Your task to perform on an android device: toggle translation in the chrome app Image 0: 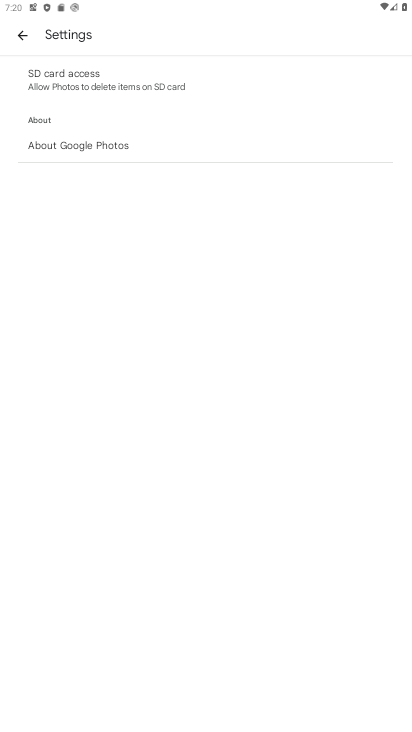
Step 0: press home button
Your task to perform on an android device: toggle translation in the chrome app Image 1: 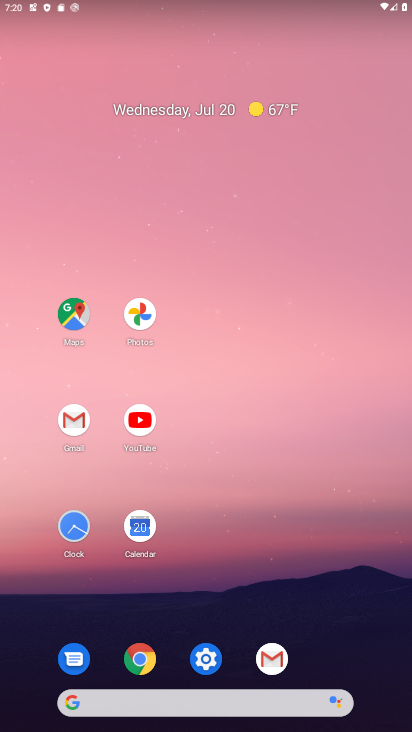
Step 1: click (141, 659)
Your task to perform on an android device: toggle translation in the chrome app Image 2: 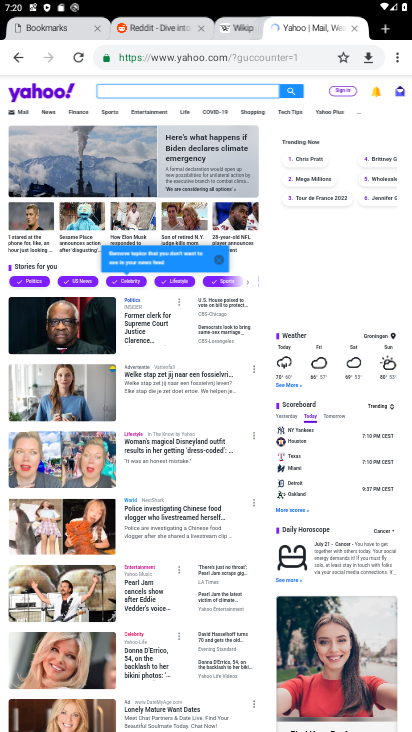
Step 2: click (398, 59)
Your task to perform on an android device: toggle translation in the chrome app Image 3: 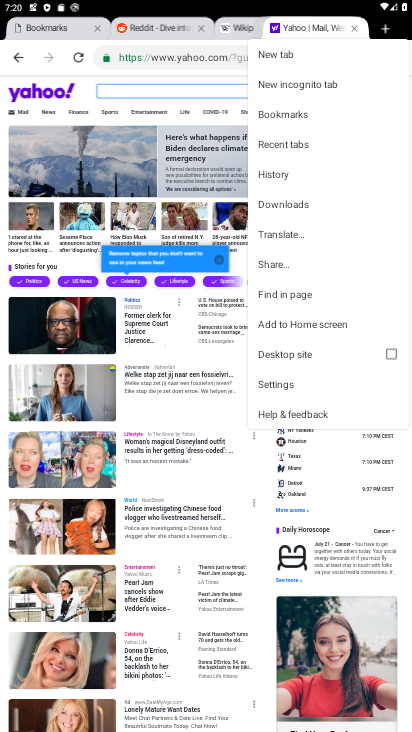
Step 3: click (286, 380)
Your task to perform on an android device: toggle translation in the chrome app Image 4: 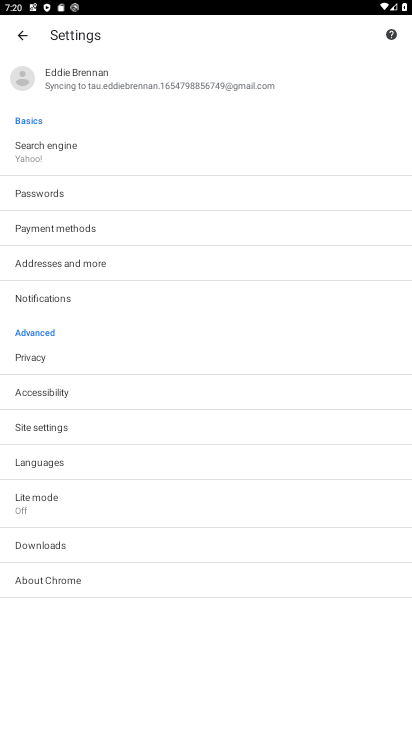
Step 4: click (56, 463)
Your task to perform on an android device: toggle translation in the chrome app Image 5: 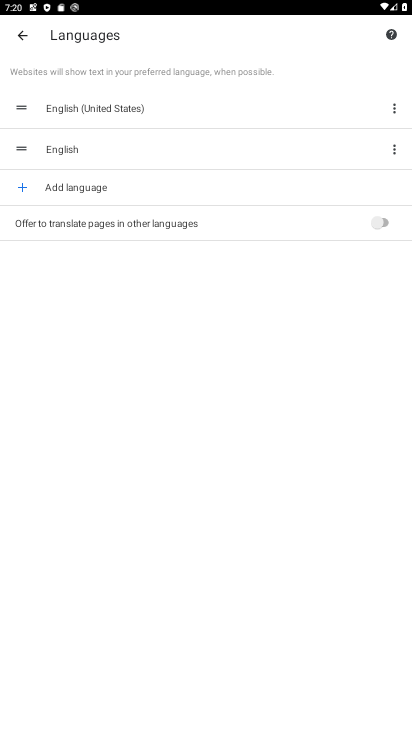
Step 5: click (382, 222)
Your task to perform on an android device: toggle translation in the chrome app Image 6: 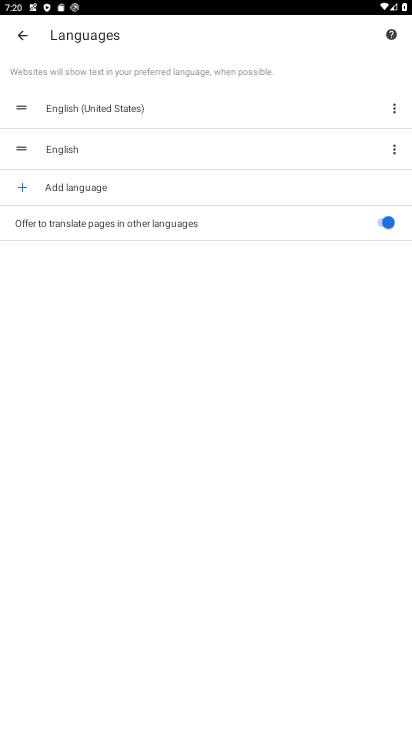
Step 6: task complete